Your task to perform on an android device: toggle data saver in the chrome app Image 0: 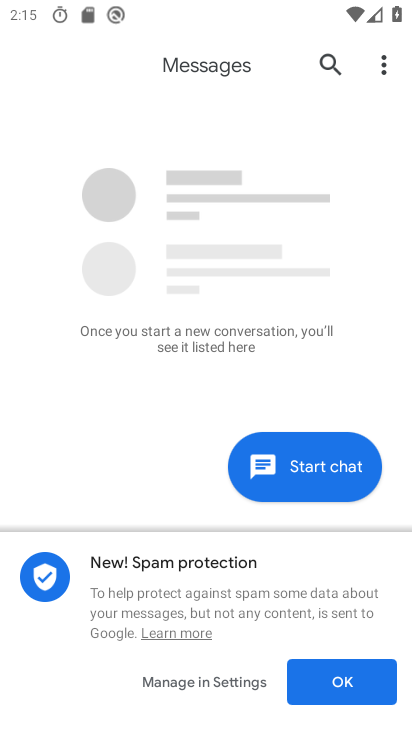
Step 0: press home button
Your task to perform on an android device: toggle data saver in the chrome app Image 1: 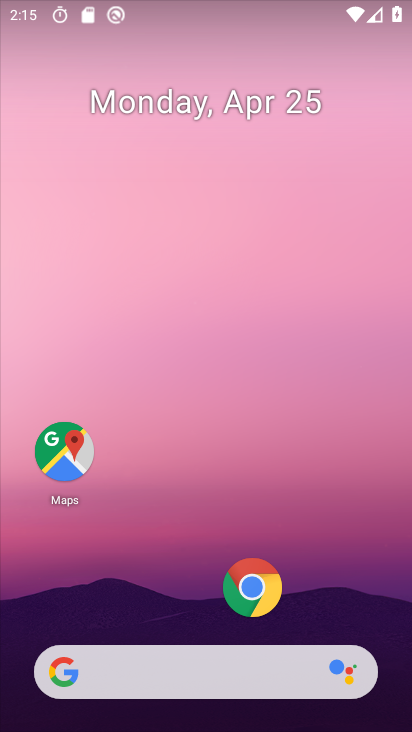
Step 1: drag from (202, 622) to (236, 6)
Your task to perform on an android device: toggle data saver in the chrome app Image 2: 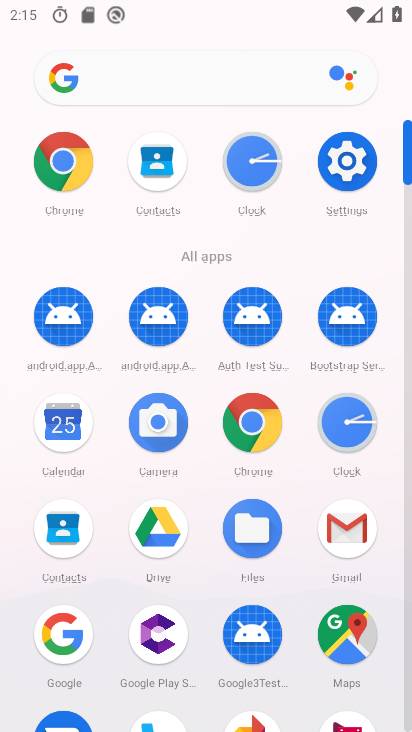
Step 2: click (256, 413)
Your task to perform on an android device: toggle data saver in the chrome app Image 3: 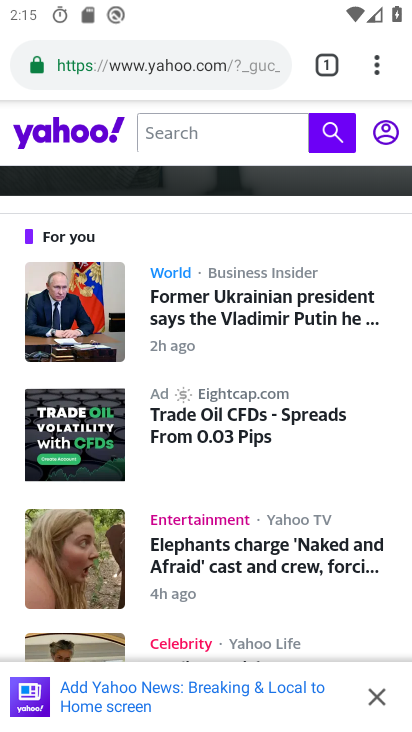
Step 3: click (376, 64)
Your task to perform on an android device: toggle data saver in the chrome app Image 4: 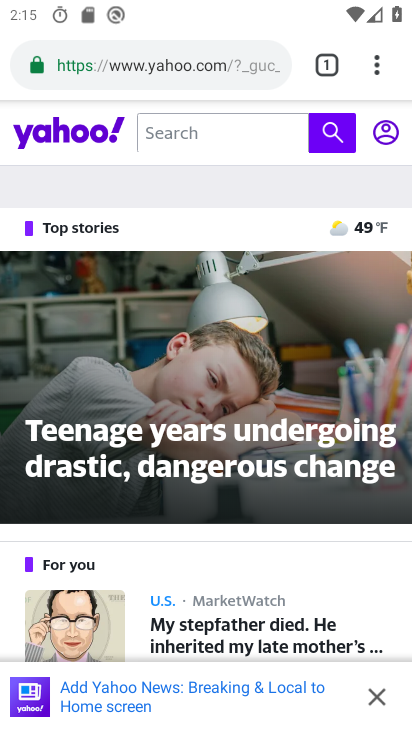
Step 4: click (372, 57)
Your task to perform on an android device: toggle data saver in the chrome app Image 5: 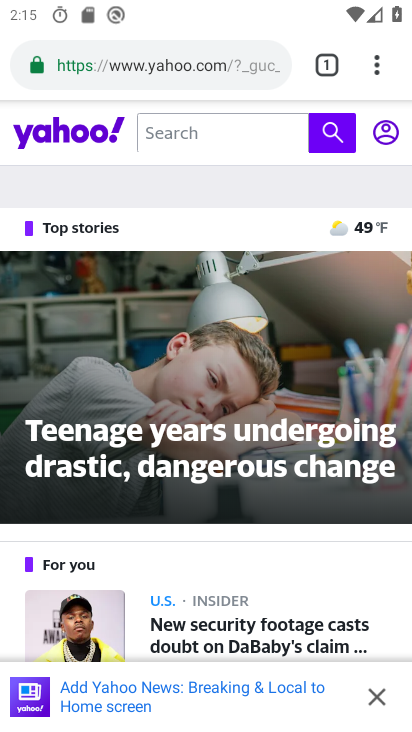
Step 5: click (374, 63)
Your task to perform on an android device: toggle data saver in the chrome app Image 6: 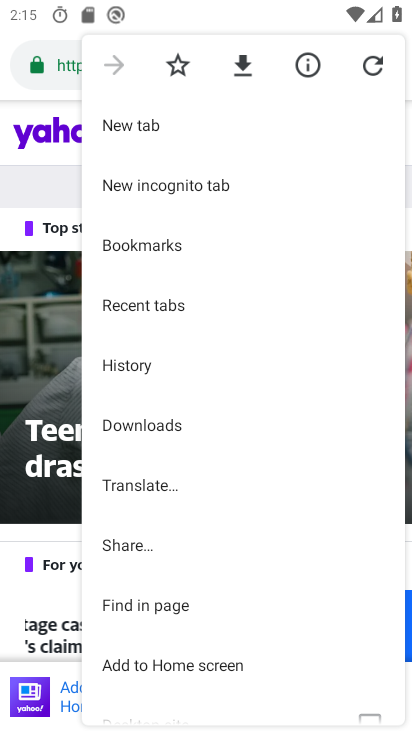
Step 6: drag from (248, 615) to (264, 86)
Your task to perform on an android device: toggle data saver in the chrome app Image 7: 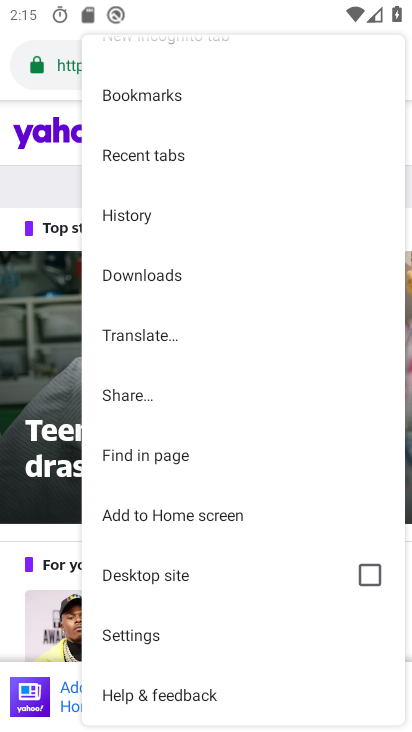
Step 7: click (163, 630)
Your task to perform on an android device: toggle data saver in the chrome app Image 8: 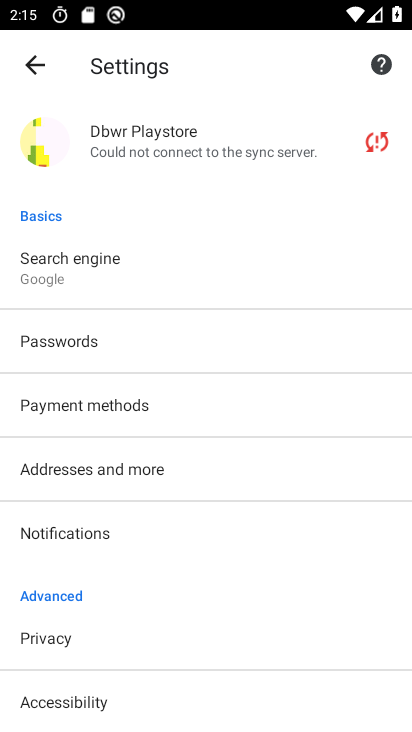
Step 8: drag from (192, 652) to (233, 91)
Your task to perform on an android device: toggle data saver in the chrome app Image 9: 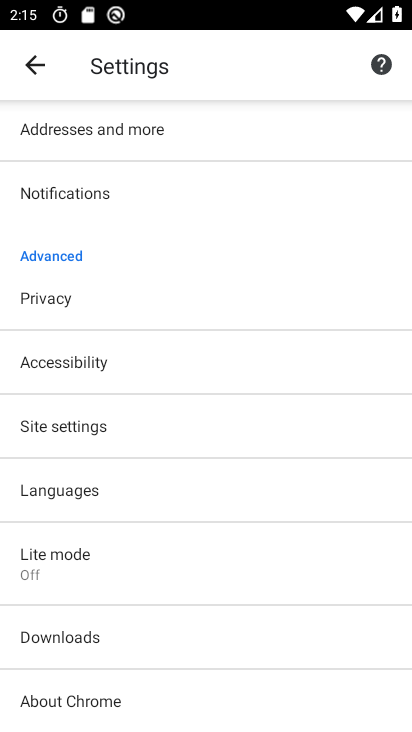
Step 9: click (101, 571)
Your task to perform on an android device: toggle data saver in the chrome app Image 10: 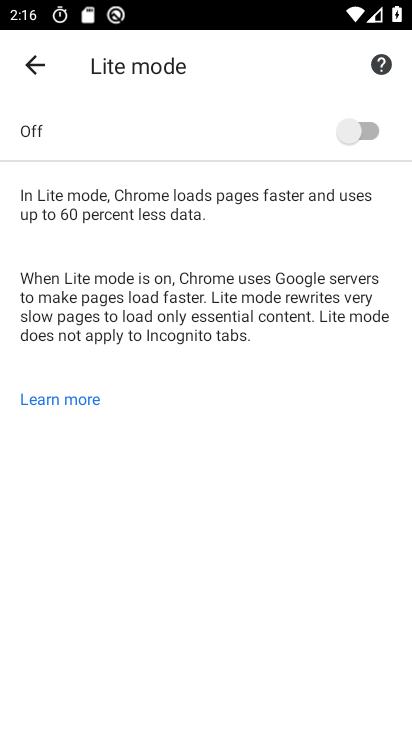
Step 10: click (361, 122)
Your task to perform on an android device: toggle data saver in the chrome app Image 11: 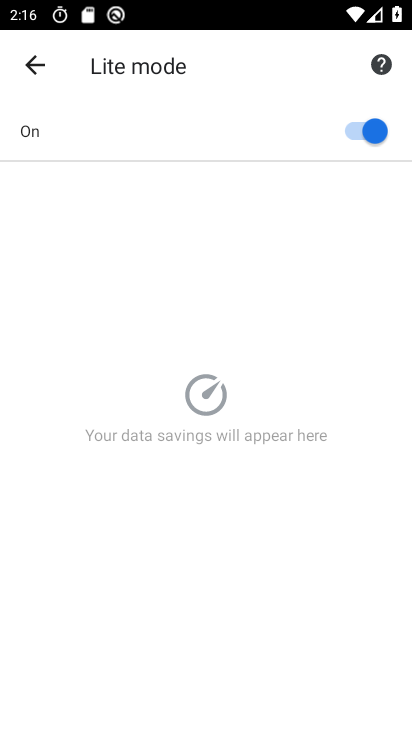
Step 11: task complete